Your task to perform on an android device: create a new album in the google photos Image 0: 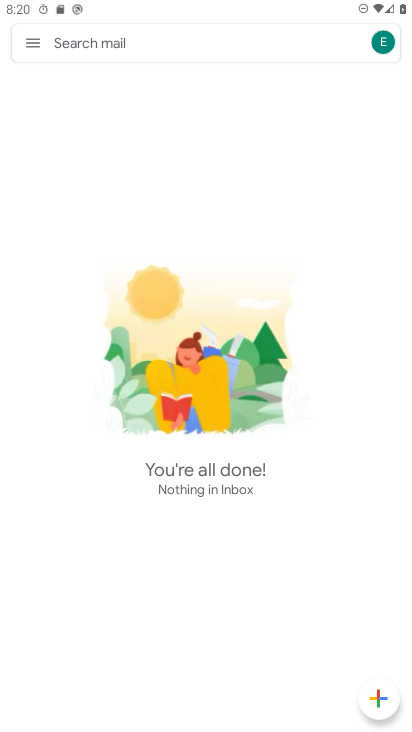
Step 0: press home button
Your task to perform on an android device: create a new album in the google photos Image 1: 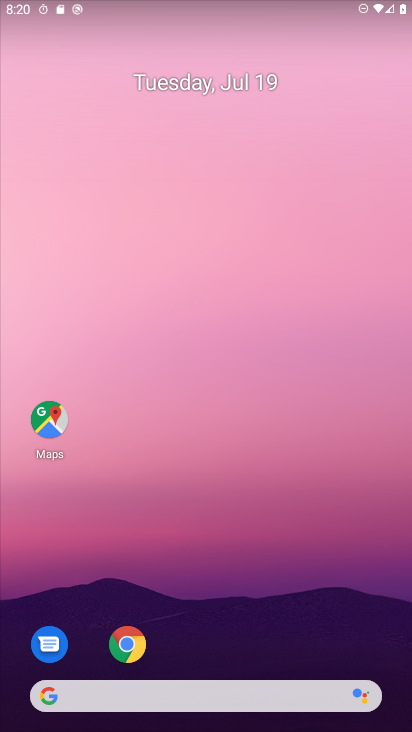
Step 1: drag from (206, 334) to (283, 119)
Your task to perform on an android device: create a new album in the google photos Image 2: 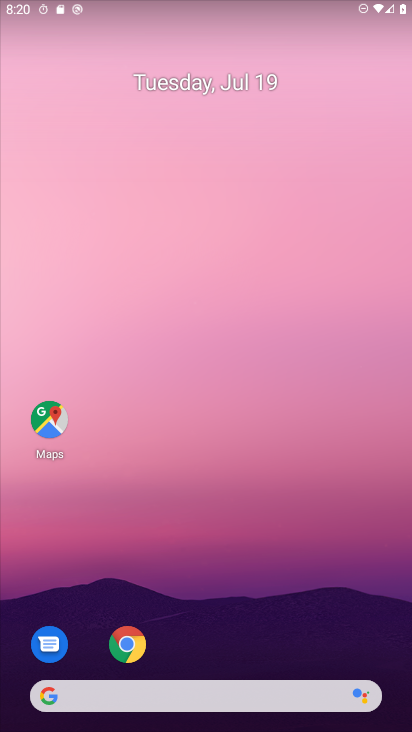
Step 2: drag from (15, 659) to (289, 34)
Your task to perform on an android device: create a new album in the google photos Image 3: 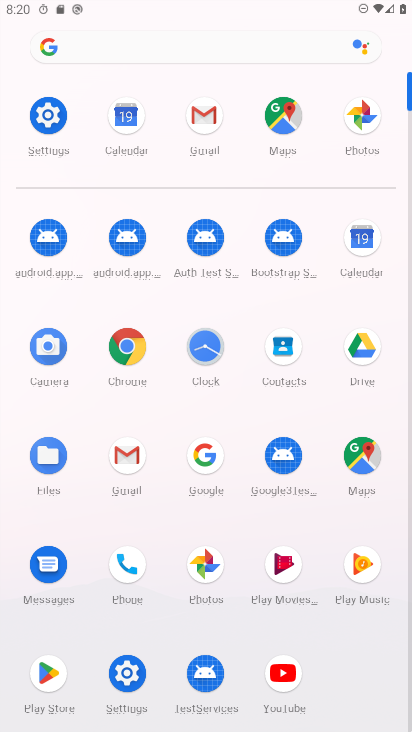
Step 3: click (207, 568)
Your task to perform on an android device: create a new album in the google photos Image 4: 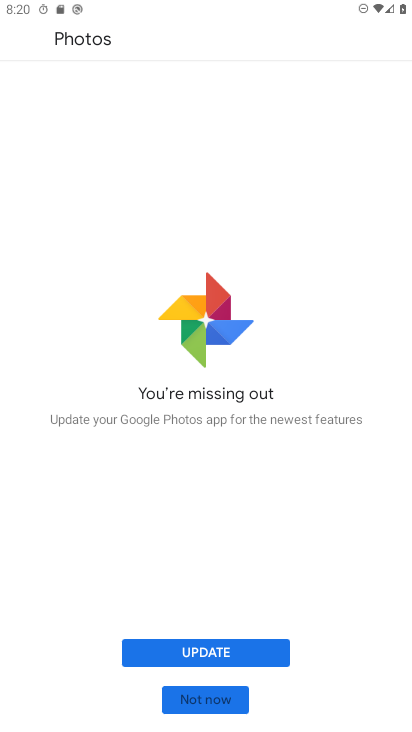
Step 4: click (208, 695)
Your task to perform on an android device: create a new album in the google photos Image 5: 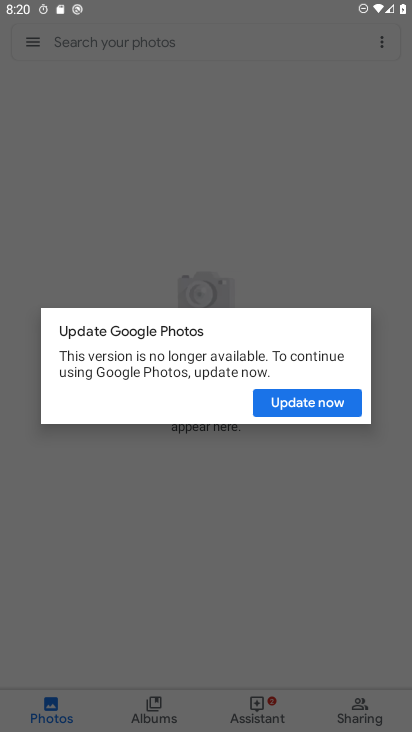
Step 5: click (334, 384)
Your task to perform on an android device: create a new album in the google photos Image 6: 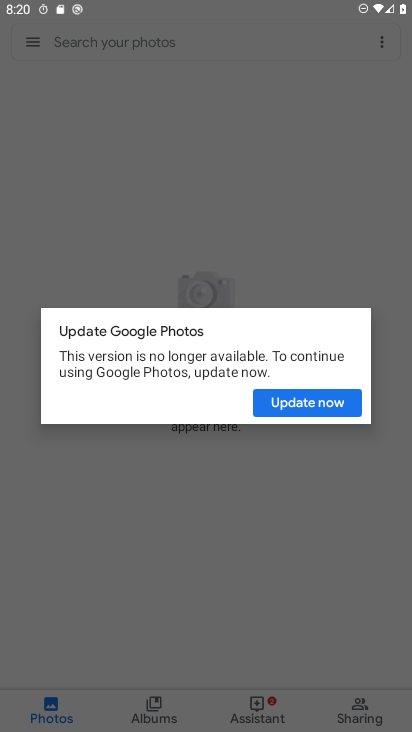
Step 6: click (313, 407)
Your task to perform on an android device: create a new album in the google photos Image 7: 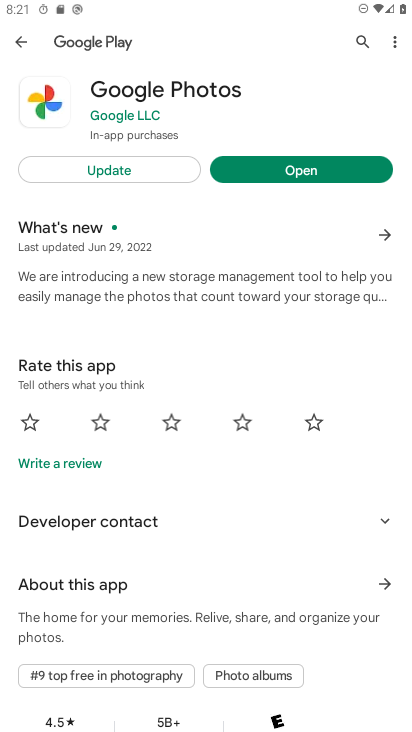
Step 7: click (267, 167)
Your task to perform on an android device: create a new album in the google photos Image 8: 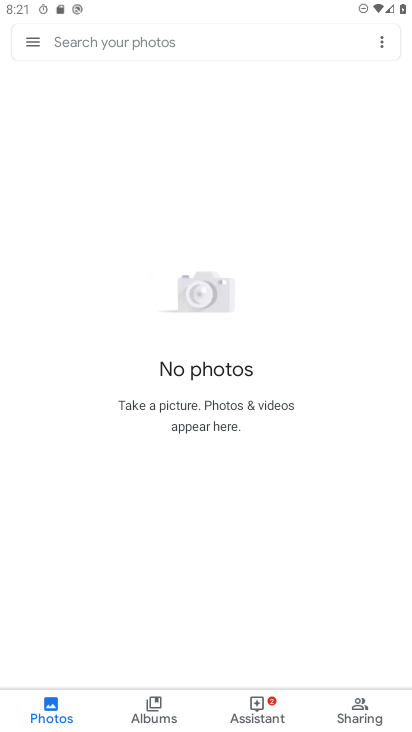
Step 8: click (154, 721)
Your task to perform on an android device: create a new album in the google photos Image 9: 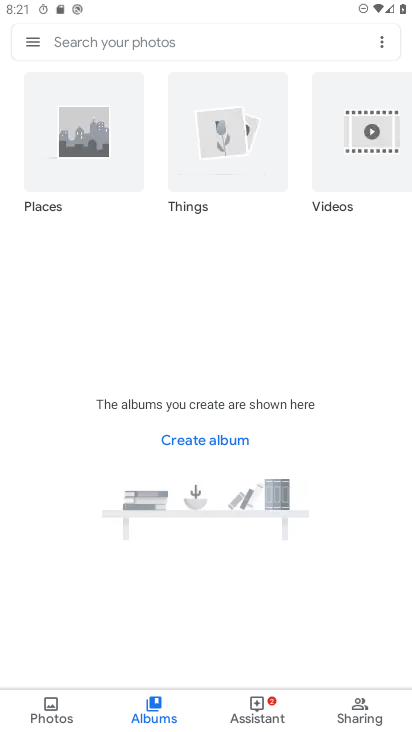
Step 9: task complete